Your task to perform on an android device: find photos in the google photos app Image 0: 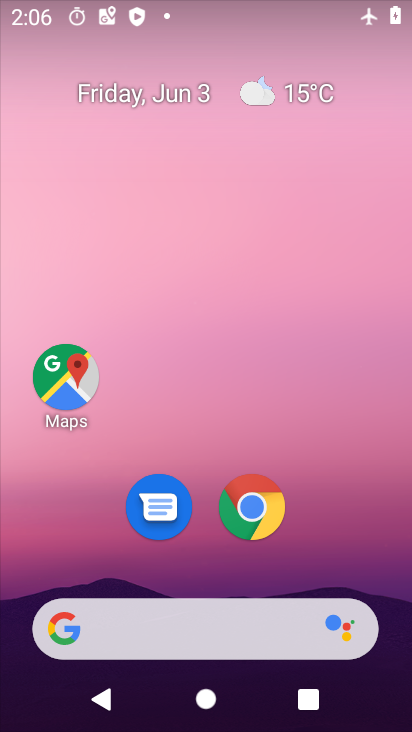
Step 0: drag from (385, 622) to (276, 33)
Your task to perform on an android device: find photos in the google photos app Image 1: 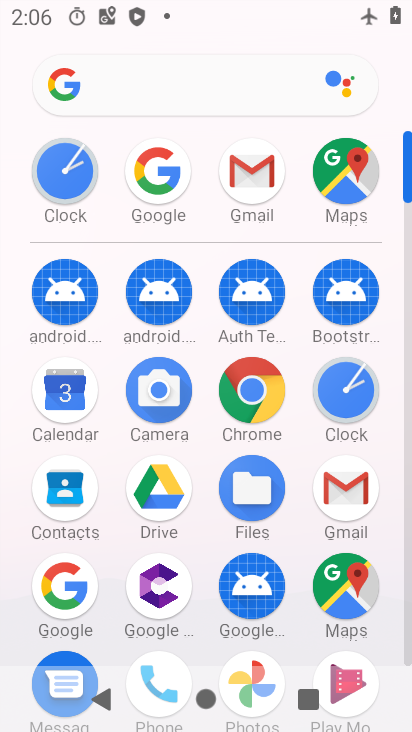
Step 1: click (249, 658)
Your task to perform on an android device: find photos in the google photos app Image 2: 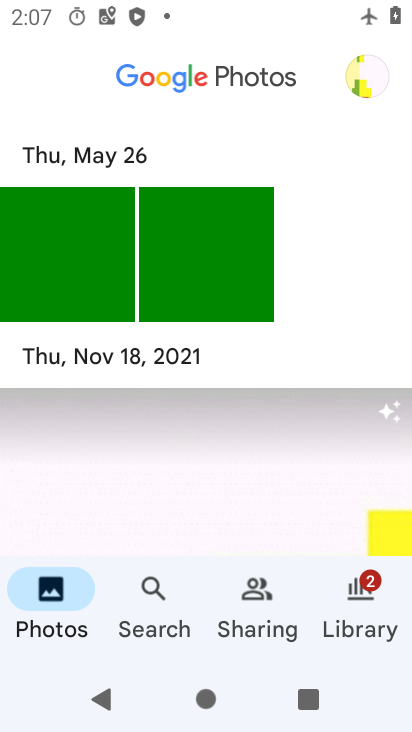
Step 2: task complete